Your task to perform on an android device: turn on showing notifications on the lock screen Image 0: 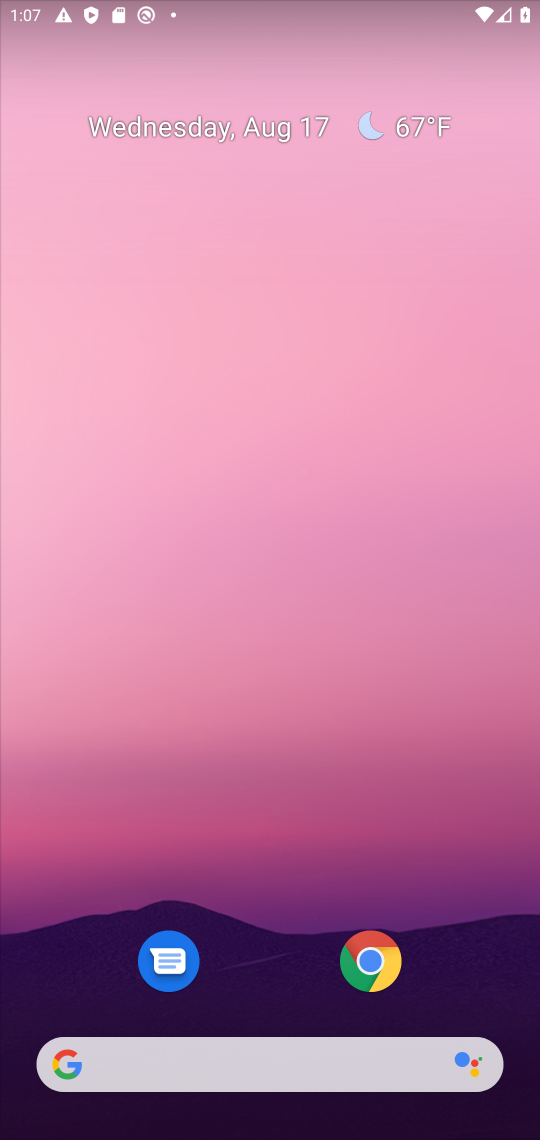
Step 0: drag from (425, 535) to (519, 210)
Your task to perform on an android device: turn on showing notifications on the lock screen Image 1: 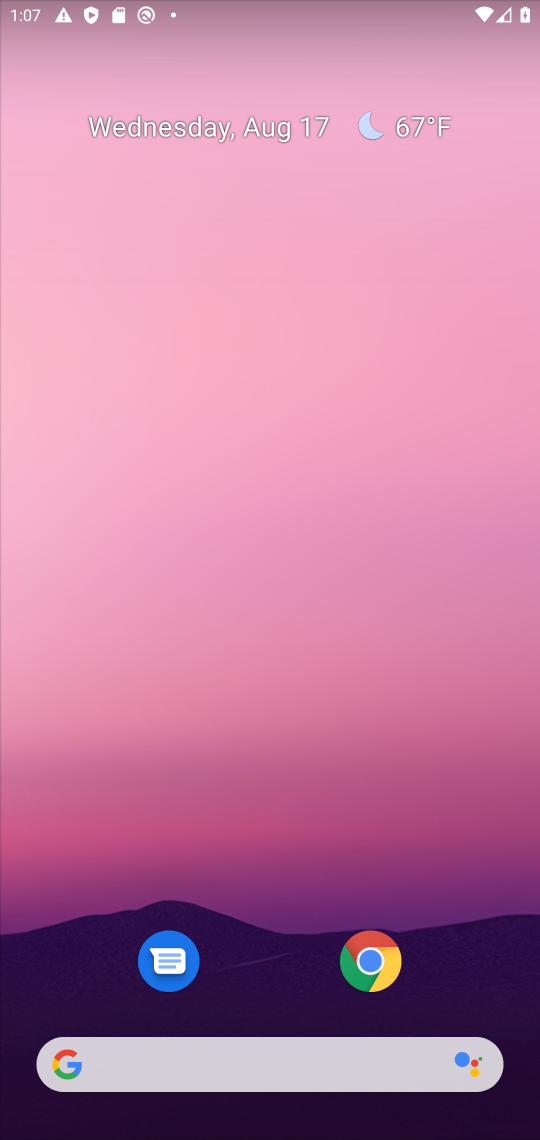
Step 1: drag from (292, 954) to (476, 194)
Your task to perform on an android device: turn on showing notifications on the lock screen Image 2: 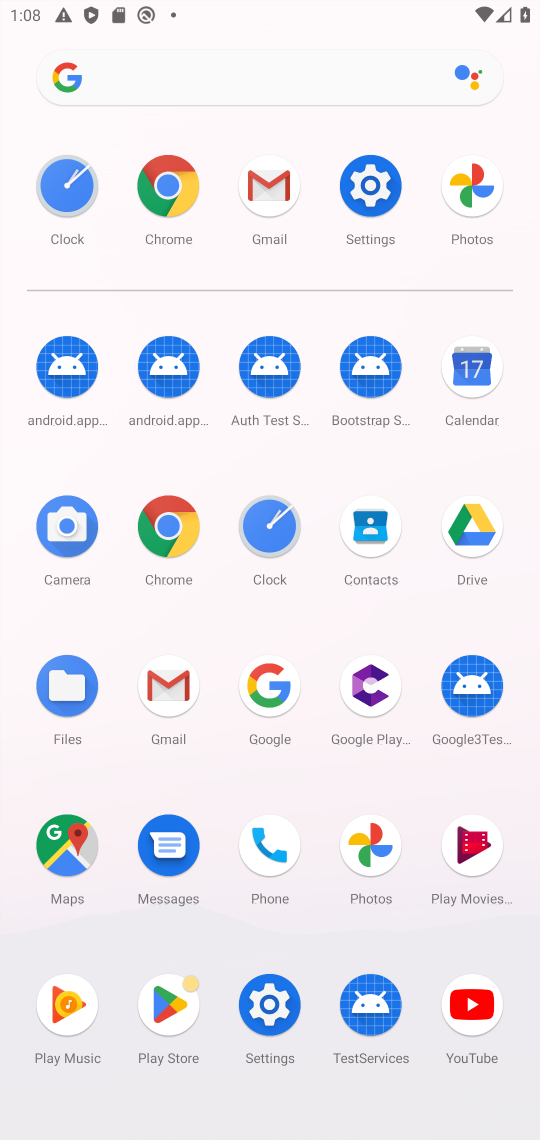
Step 2: click (369, 186)
Your task to perform on an android device: turn on showing notifications on the lock screen Image 3: 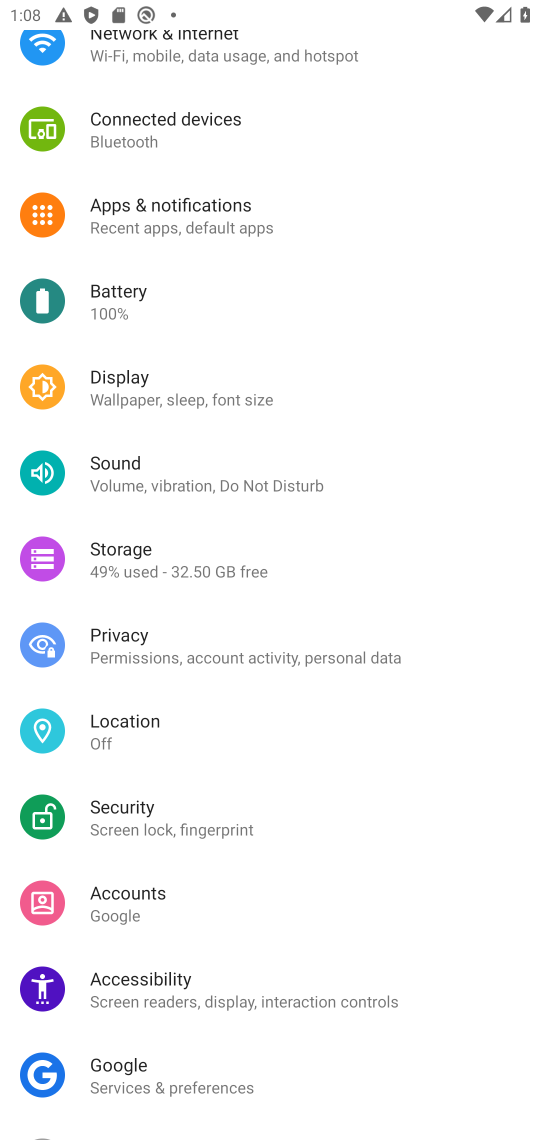
Step 3: click (181, 215)
Your task to perform on an android device: turn on showing notifications on the lock screen Image 4: 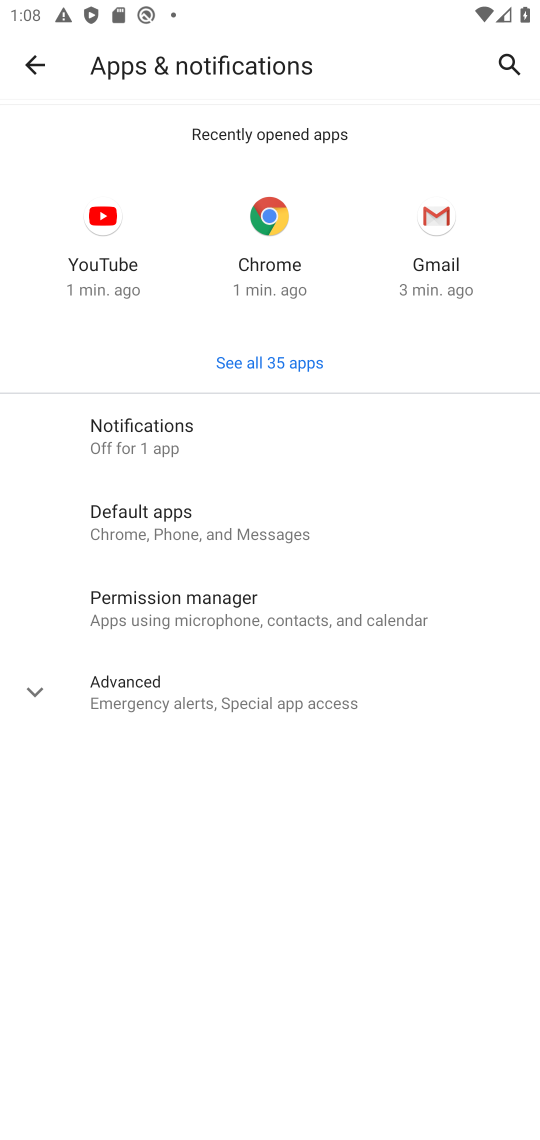
Step 4: click (185, 434)
Your task to perform on an android device: turn on showing notifications on the lock screen Image 5: 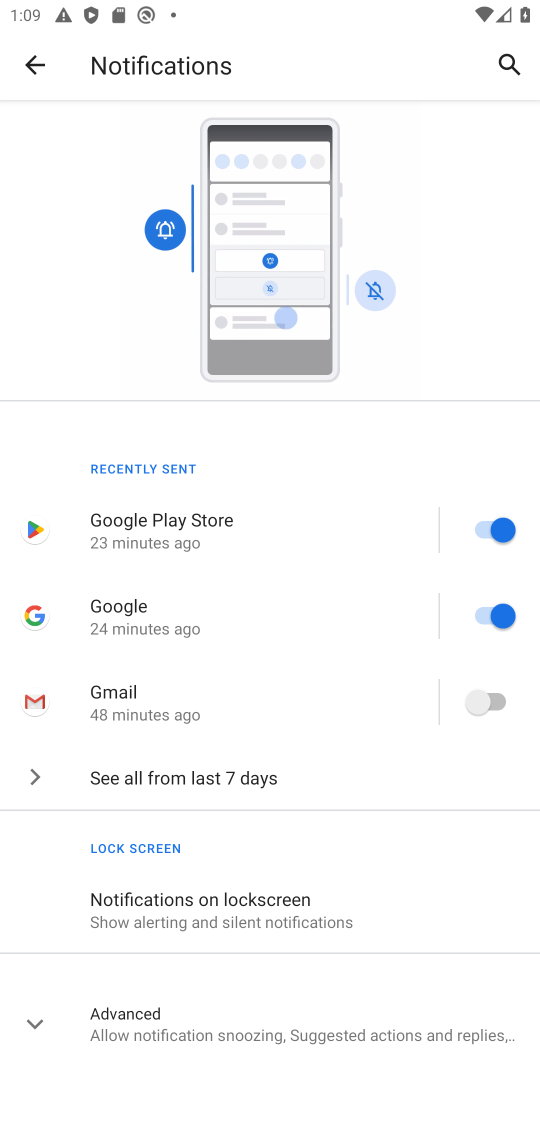
Step 5: click (258, 896)
Your task to perform on an android device: turn on showing notifications on the lock screen Image 6: 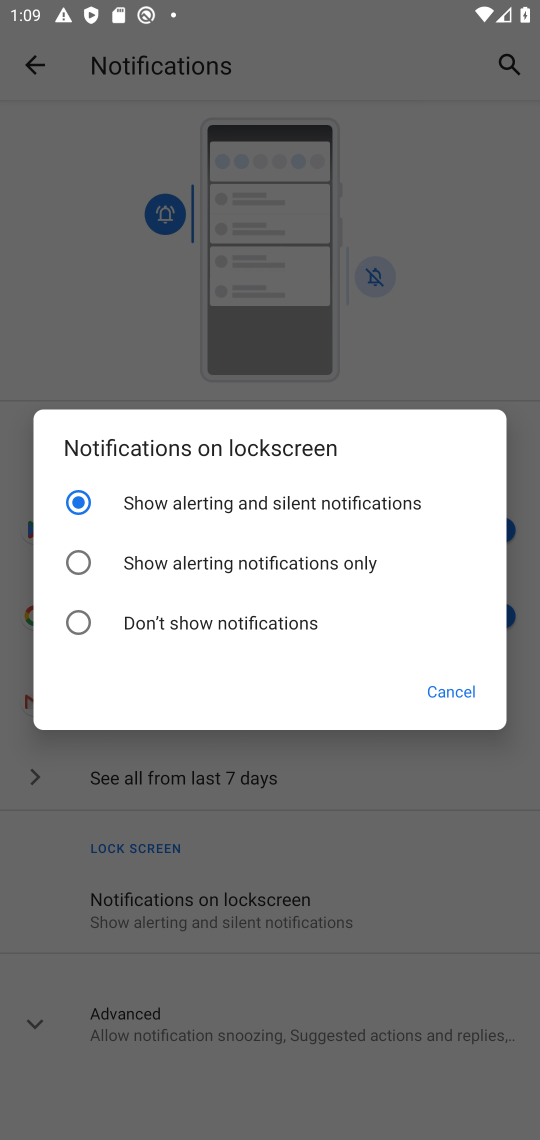
Step 6: task complete